Your task to perform on an android device: Search for seafood restaurants on Google Maps Image 0: 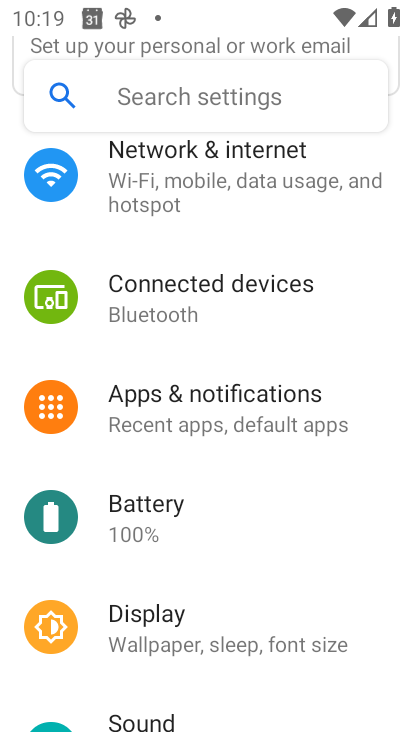
Step 0: press home button
Your task to perform on an android device: Search for seafood restaurants on Google Maps Image 1: 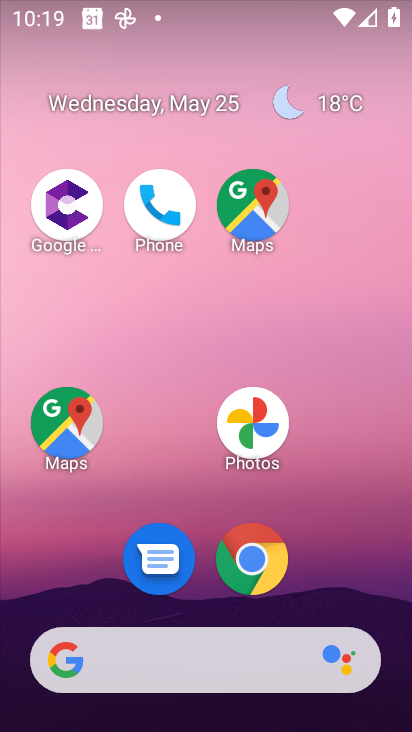
Step 1: click (81, 417)
Your task to perform on an android device: Search for seafood restaurants on Google Maps Image 2: 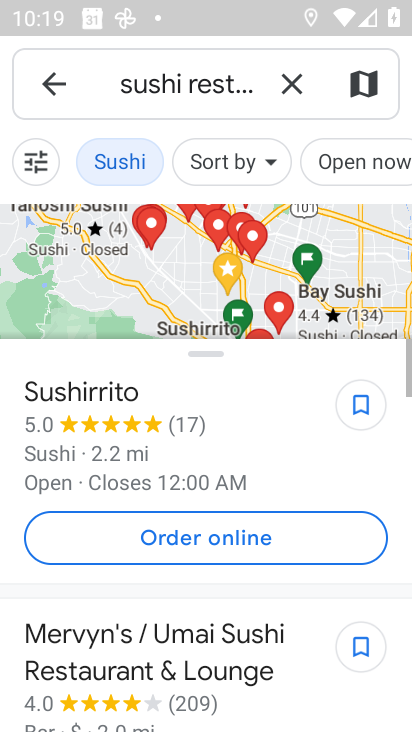
Step 2: click (292, 84)
Your task to perform on an android device: Search for seafood restaurants on Google Maps Image 3: 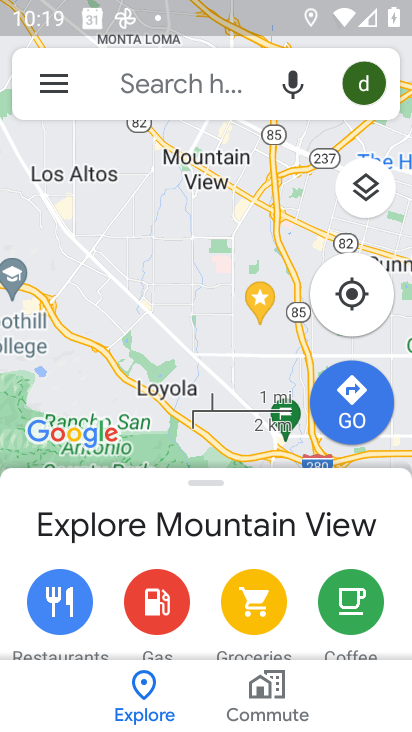
Step 3: click (168, 83)
Your task to perform on an android device: Search for seafood restaurants on Google Maps Image 4: 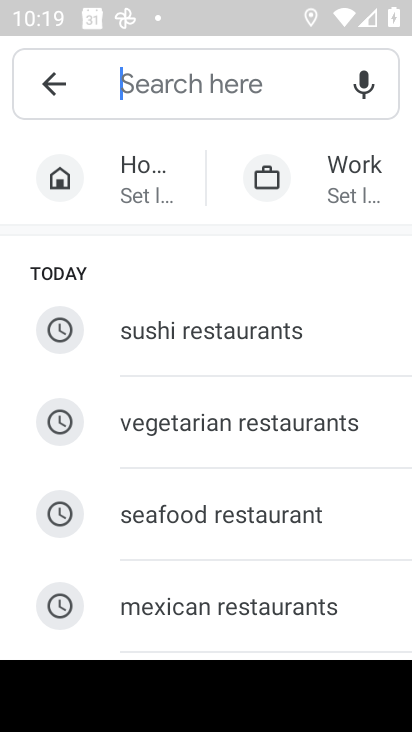
Step 4: click (261, 514)
Your task to perform on an android device: Search for seafood restaurants on Google Maps Image 5: 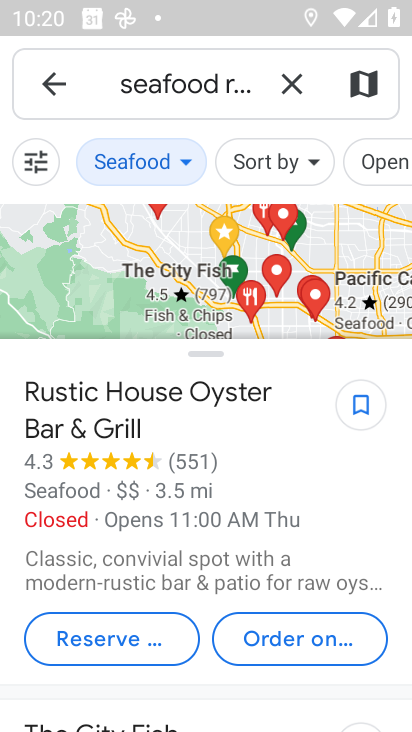
Step 5: task complete